Your task to perform on an android device: add a contact Image 0: 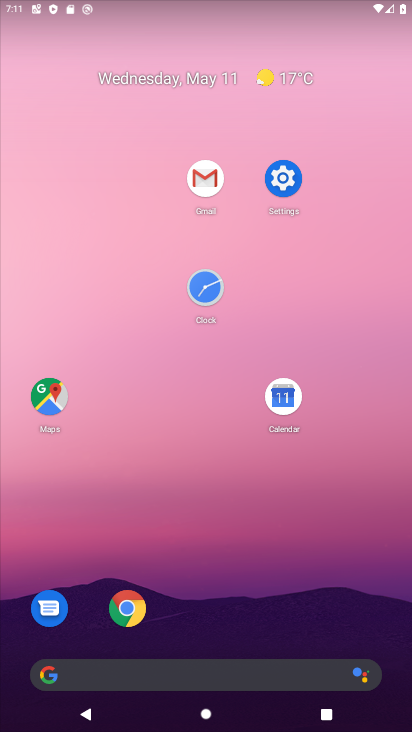
Step 0: drag from (193, 617) to (200, 91)
Your task to perform on an android device: add a contact Image 1: 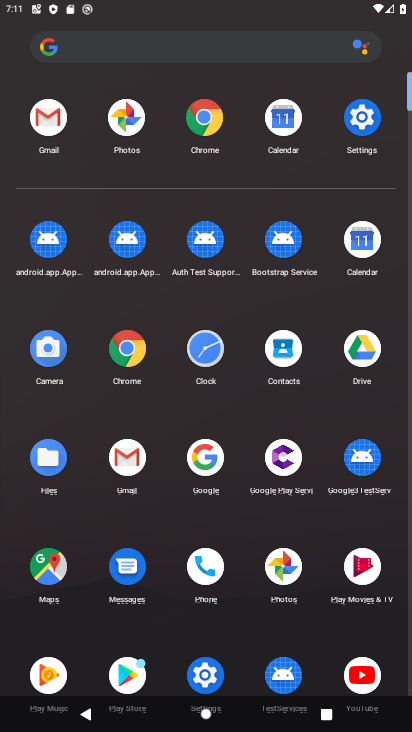
Step 1: drag from (275, 371) to (350, 404)
Your task to perform on an android device: add a contact Image 2: 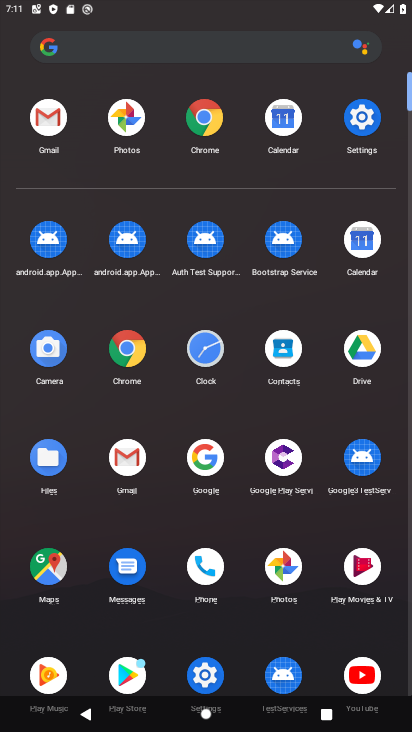
Step 2: drag from (284, 355) to (256, 386)
Your task to perform on an android device: add a contact Image 3: 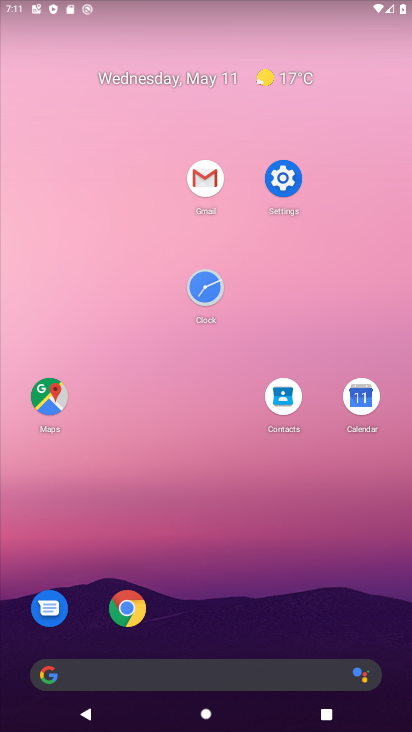
Step 3: click (298, 400)
Your task to perform on an android device: add a contact Image 4: 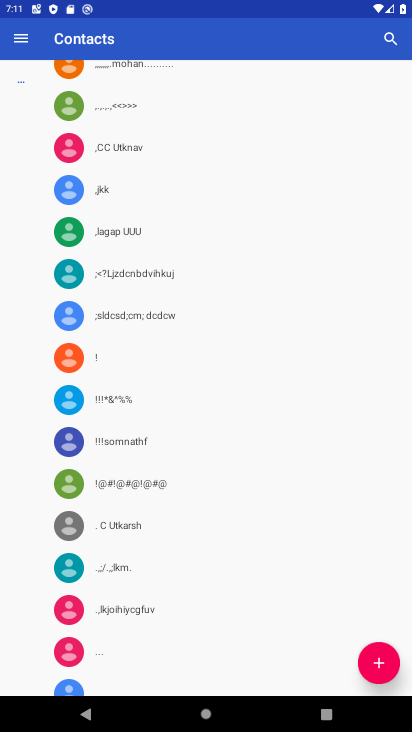
Step 4: click (366, 655)
Your task to perform on an android device: add a contact Image 5: 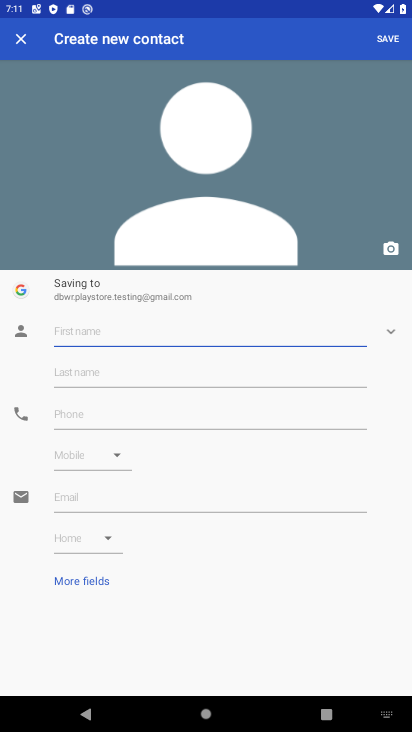
Step 5: click (226, 323)
Your task to perform on an android device: add a contact Image 6: 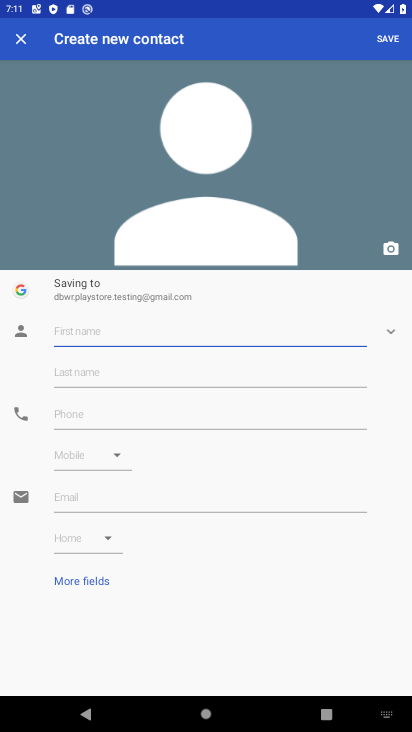
Step 6: type "aa"
Your task to perform on an android device: add a contact Image 7: 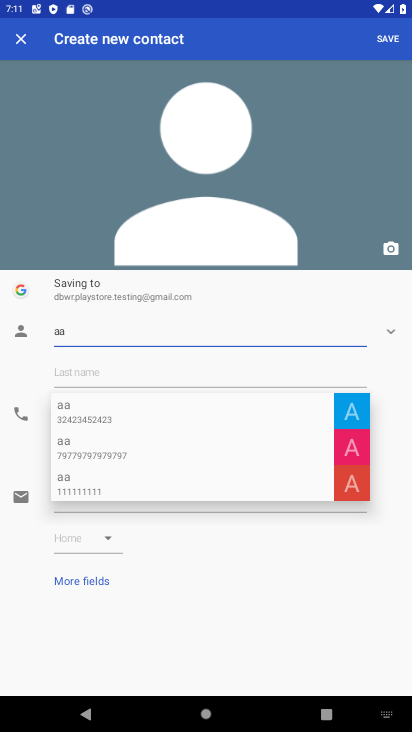
Step 7: click (231, 370)
Your task to perform on an android device: add a contact Image 8: 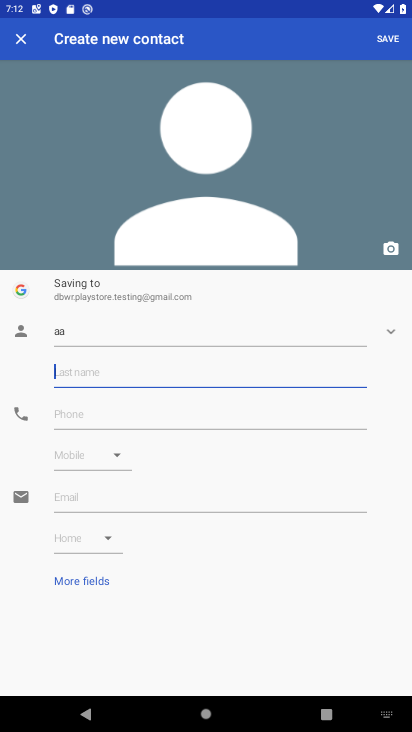
Step 8: type "axasxa"
Your task to perform on an android device: add a contact Image 9: 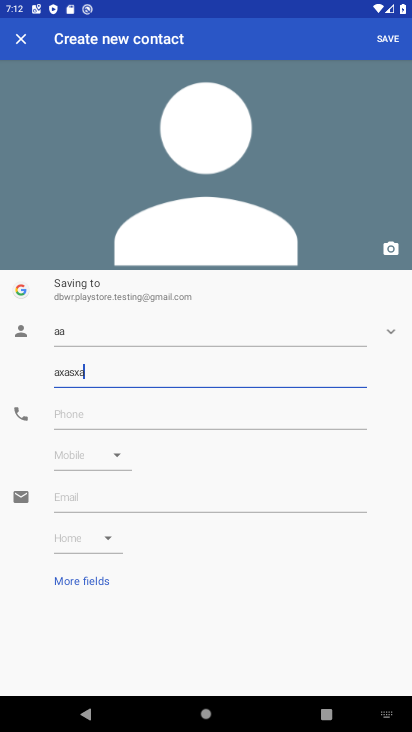
Step 9: click (232, 412)
Your task to perform on an android device: add a contact Image 10: 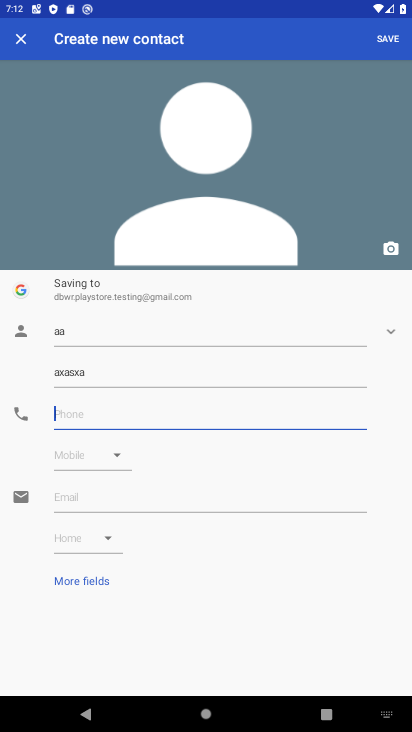
Step 10: type "4235423"
Your task to perform on an android device: add a contact Image 11: 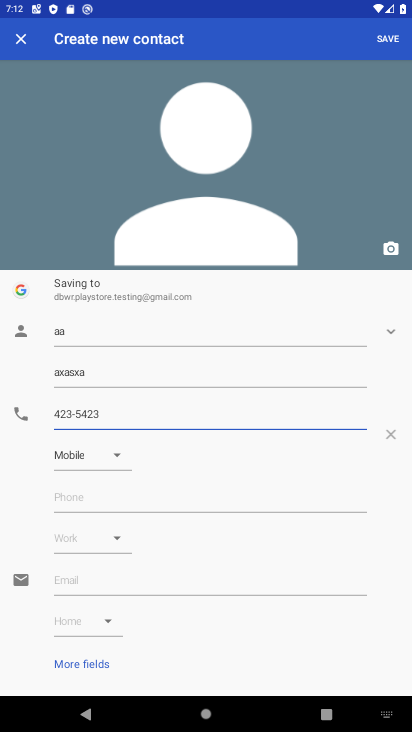
Step 11: click (398, 41)
Your task to perform on an android device: add a contact Image 12: 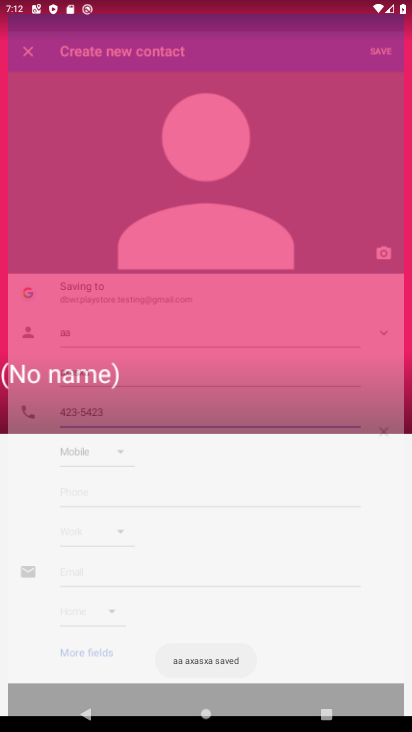
Step 12: task complete